Your task to perform on an android device: check storage Image 0: 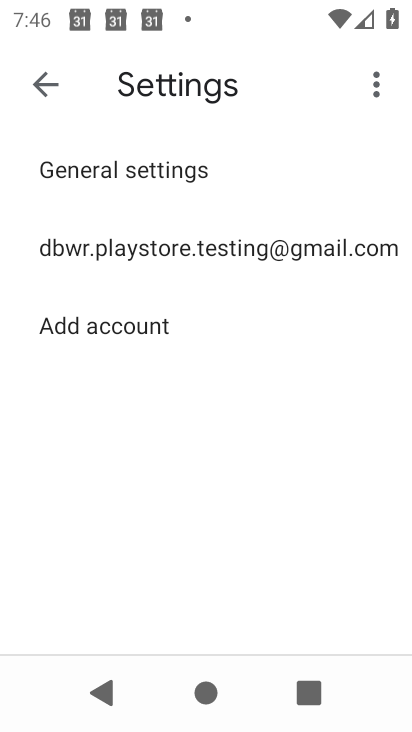
Step 0: press home button
Your task to perform on an android device: check storage Image 1: 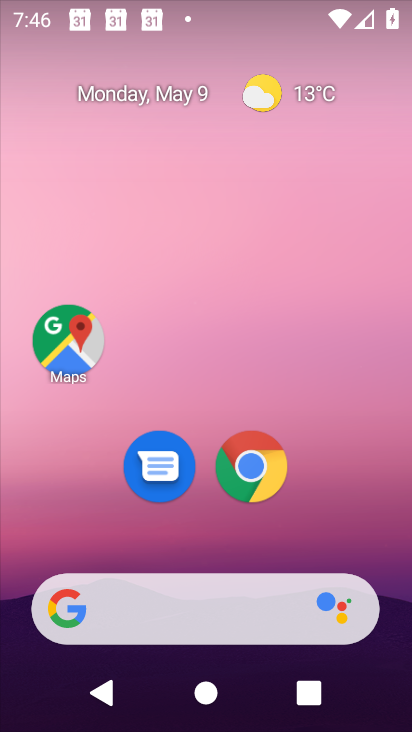
Step 1: drag from (323, 440) to (324, 209)
Your task to perform on an android device: check storage Image 2: 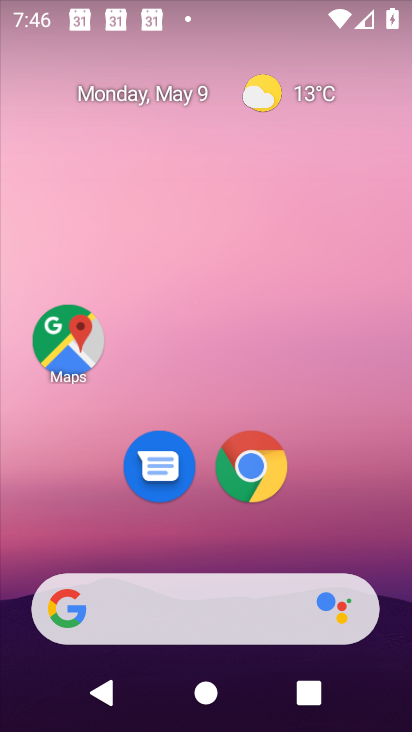
Step 2: drag from (243, 547) to (276, 315)
Your task to perform on an android device: check storage Image 3: 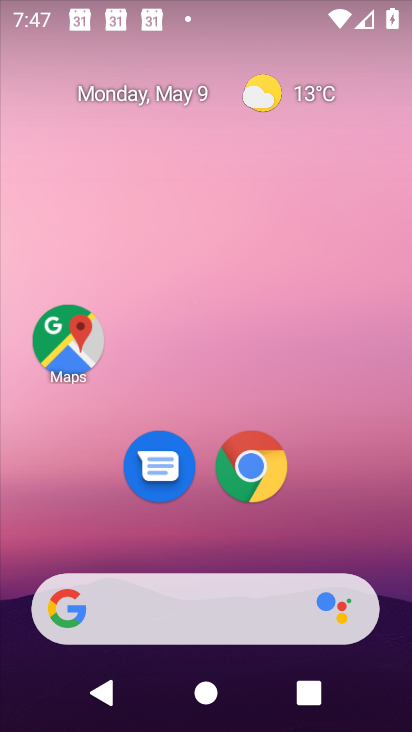
Step 3: drag from (313, 515) to (307, 185)
Your task to perform on an android device: check storage Image 4: 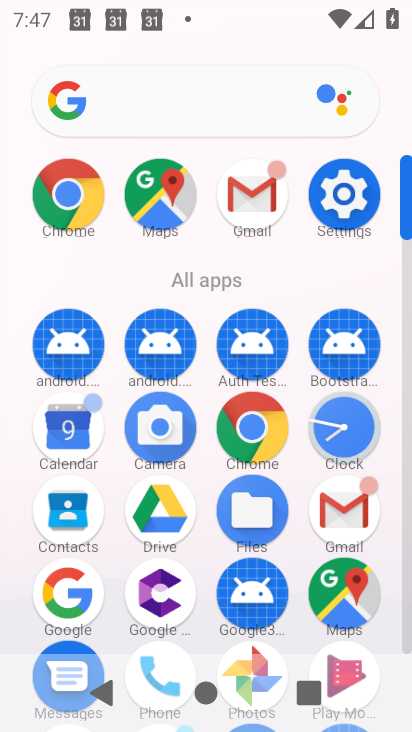
Step 4: click (328, 205)
Your task to perform on an android device: check storage Image 5: 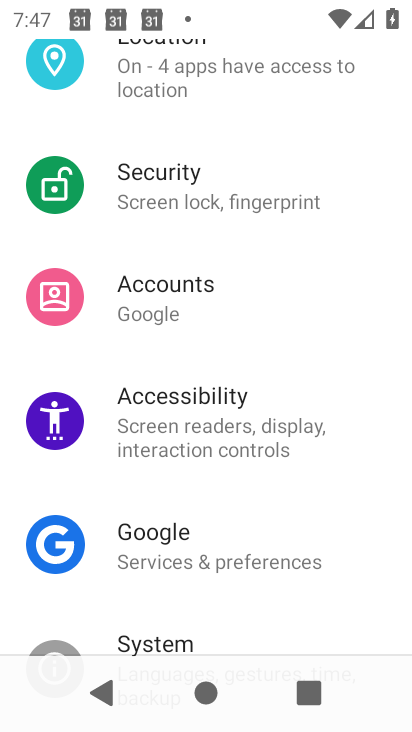
Step 5: drag from (181, 168) to (188, 513)
Your task to perform on an android device: check storage Image 6: 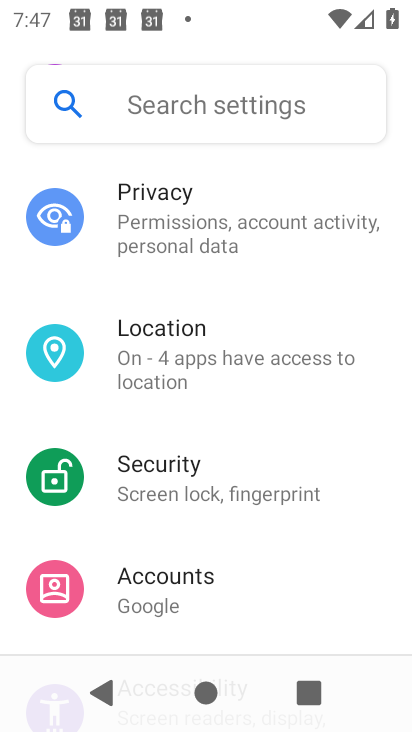
Step 6: drag from (186, 204) to (192, 357)
Your task to perform on an android device: check storage Image 7: 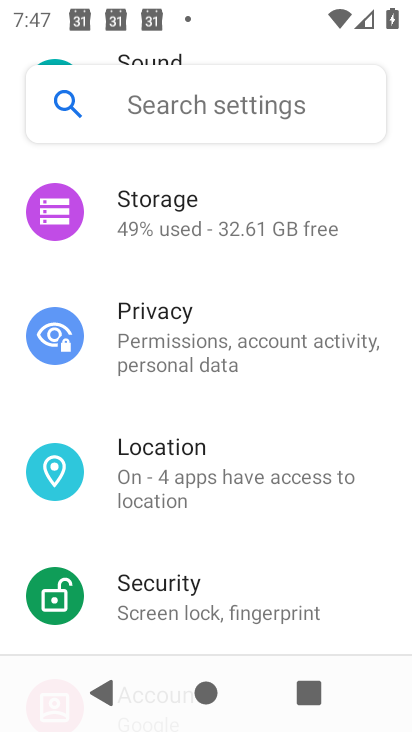
Step 7: click (196, 211)
Your task to perform on an android device: check storage Image 8: 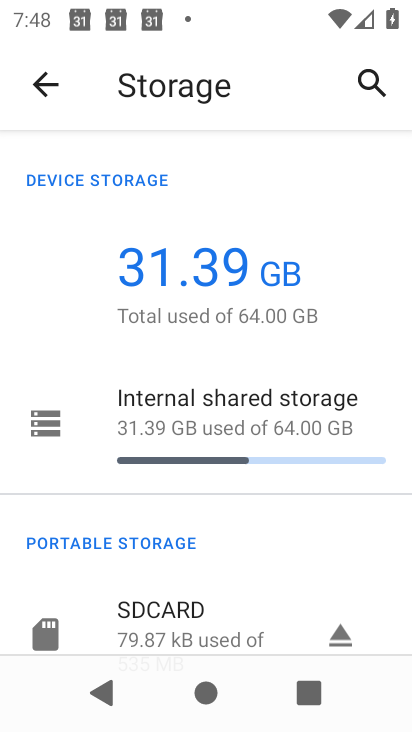
Step 8: task complete